Your task to perform on an android device: delete browsing data in the chrome app Image 0: 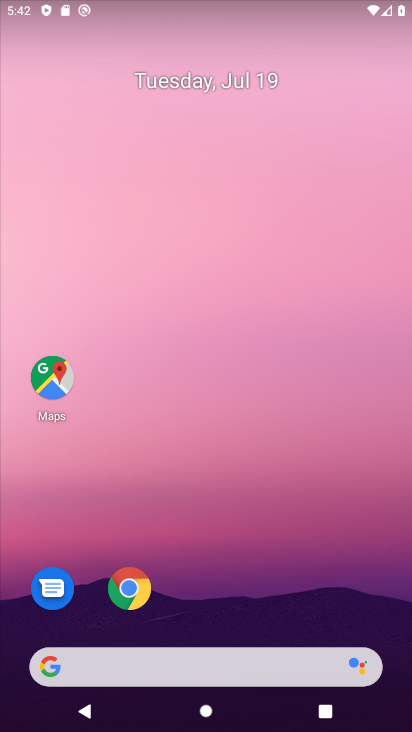
Step 0: click (127, 591)
Your task to perform on an android device: delete browsing data in the chrome app Image 1: 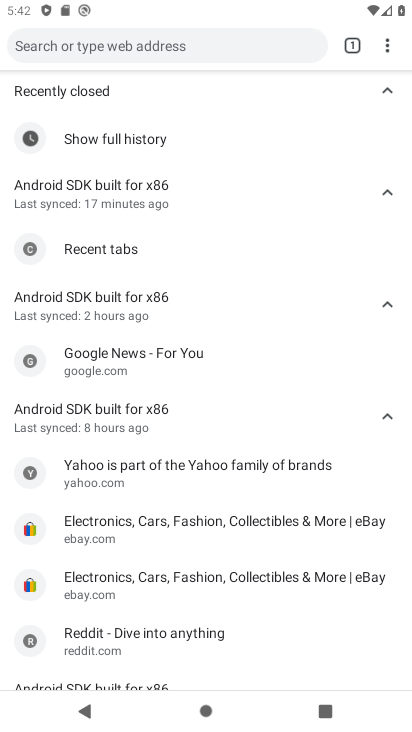
Step 1: click (394, 43)
Your task to perform on an android device: delete browsing data in the chrome app Image 2: 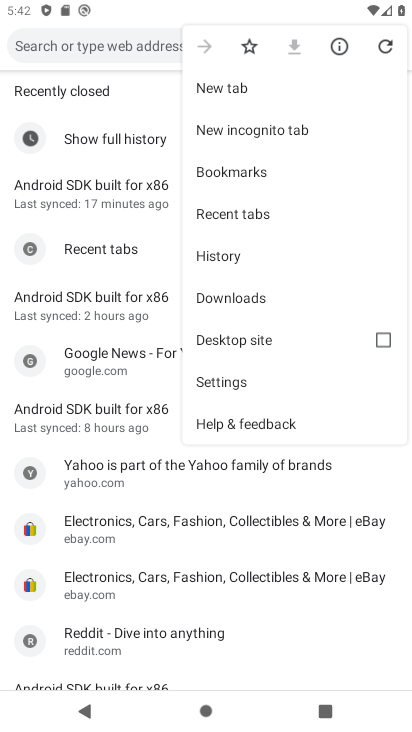
Step 2: click (238, 260)
Your task to perform on an android device: delete browsing data in the chrome app Image 3: 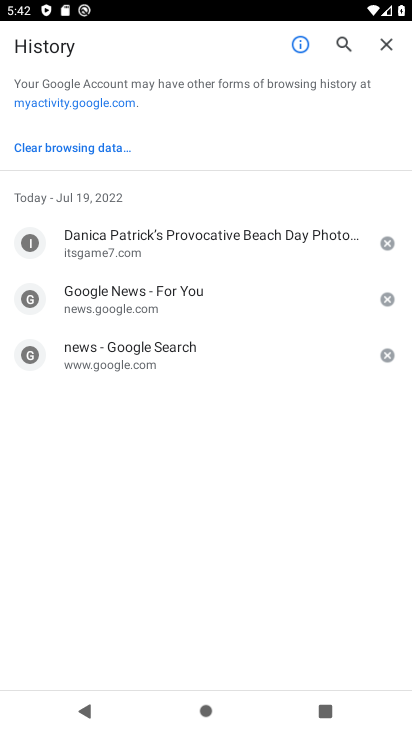
Step 3: click (117, 152)
Your task to perform on an android device: delete browsing data in the chrome app Image 4: 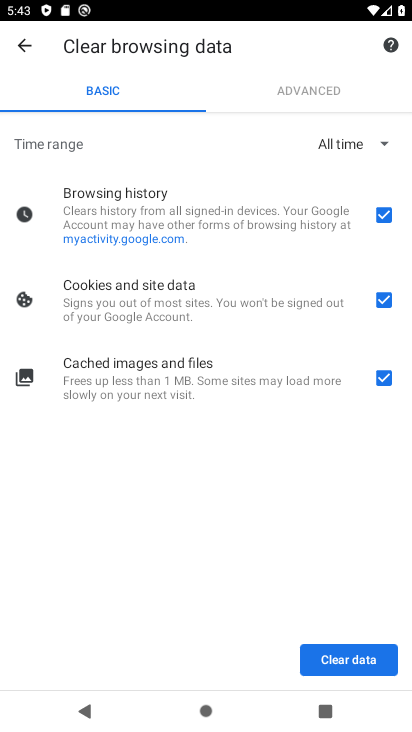
Step 4: click (377, 300)
Your task to perform on an android device: delete browsing data in the chrome app Image 5: 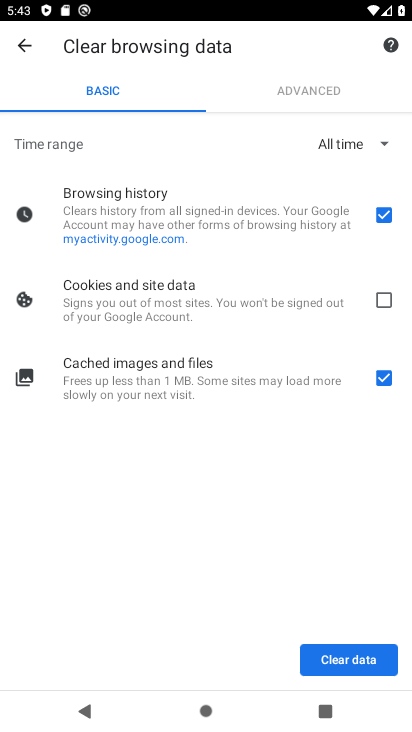
Step 5: click (386, 375)
Your task to perform on an android device: delete browsing data in the chrome app Image 6: 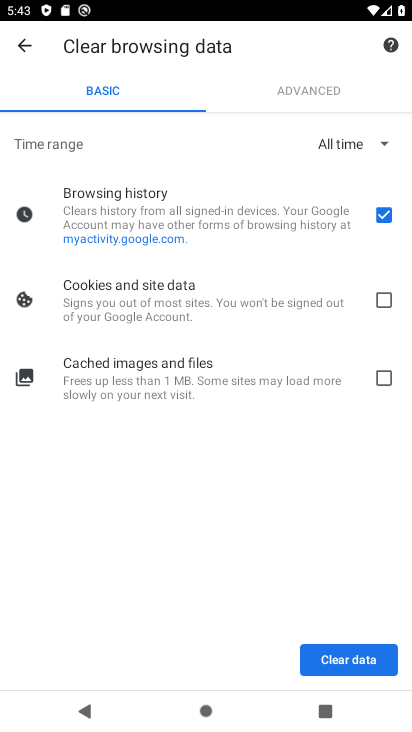
Step 6: click (336, 670)
Your task to perform on an android device: delete browsing data in the chrome app Image 7: 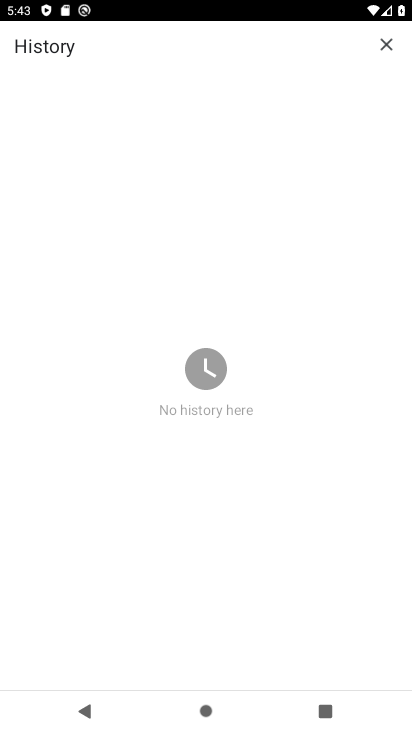
Step 7: task complete